Your task to perform on an android device: Open Chrome and go to settings Image 0: 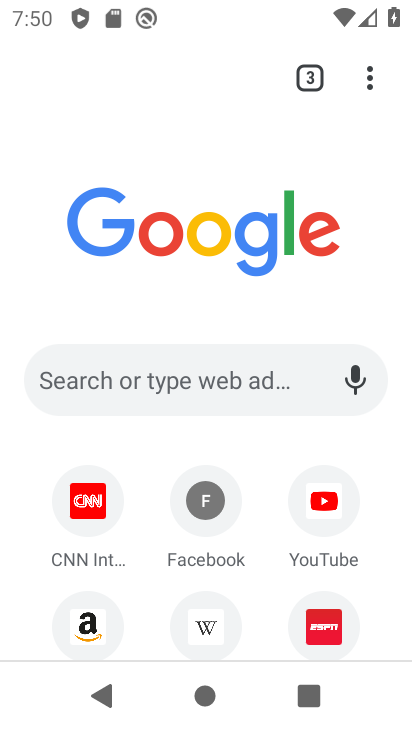
Step 0: click (370, 74)
Your task to perform on an android device: Open Chrome and go to settings Image 1: 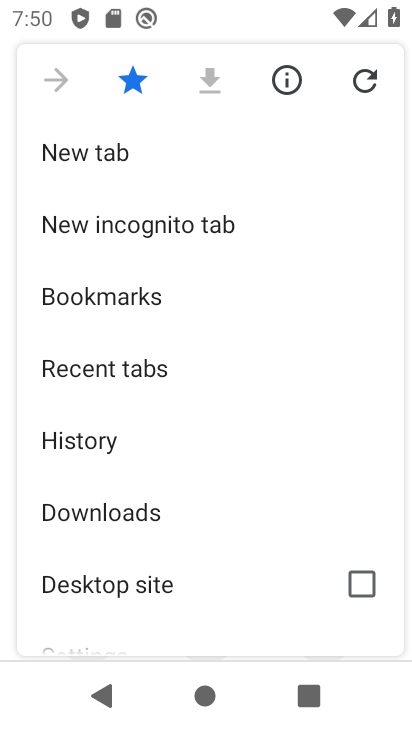
Step 1: drag from (156, 543) to (189, 223)
Your task to perform on an android device: Open Chrome and go to settings Image 2: 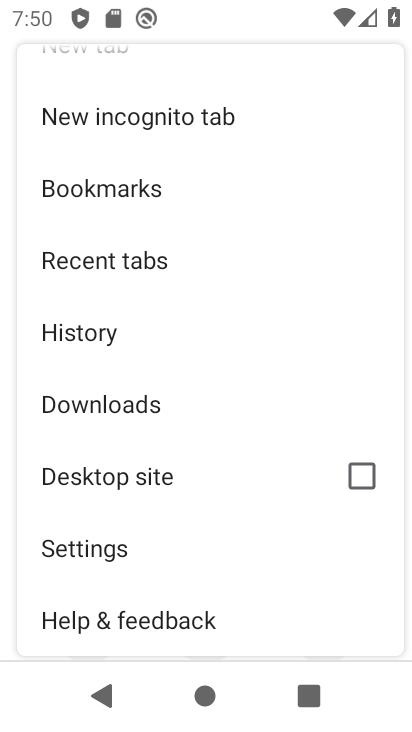
Step 2: click (97, 554)
Your task to perform on an android device: Open Chrome and go to settings Image 3: 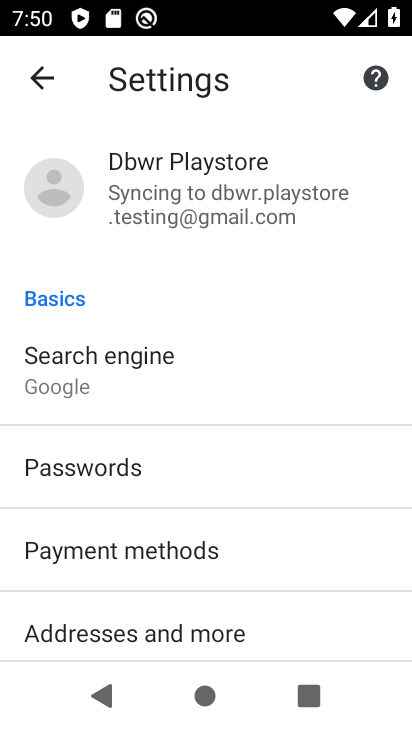
Step 3: task complete